Your task to perform on an android device: change your default location settings in chrome Image 0: 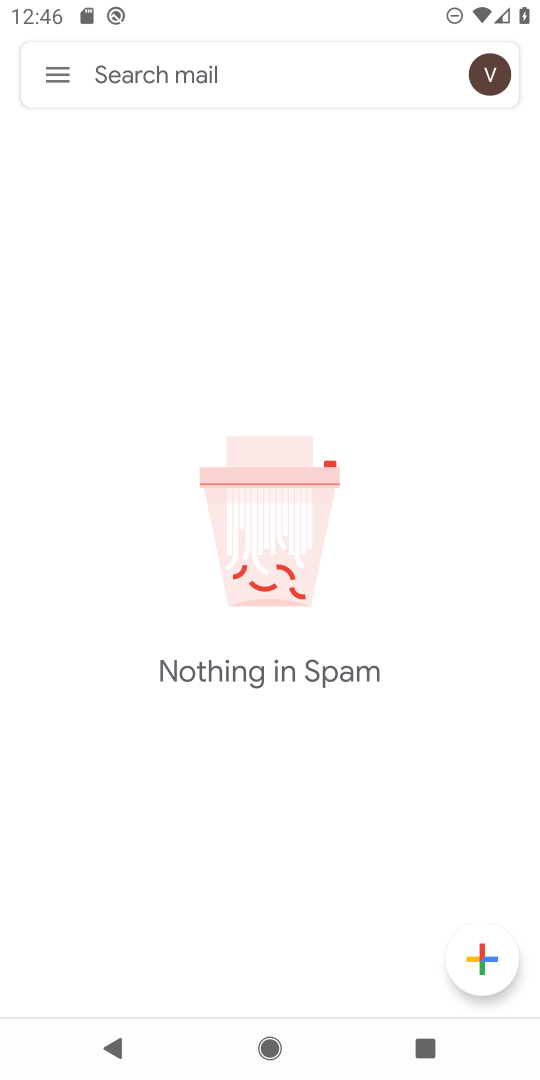
Step 0: press back button
Your task to perform on an android device: change your default location settings in chrome Image 1: 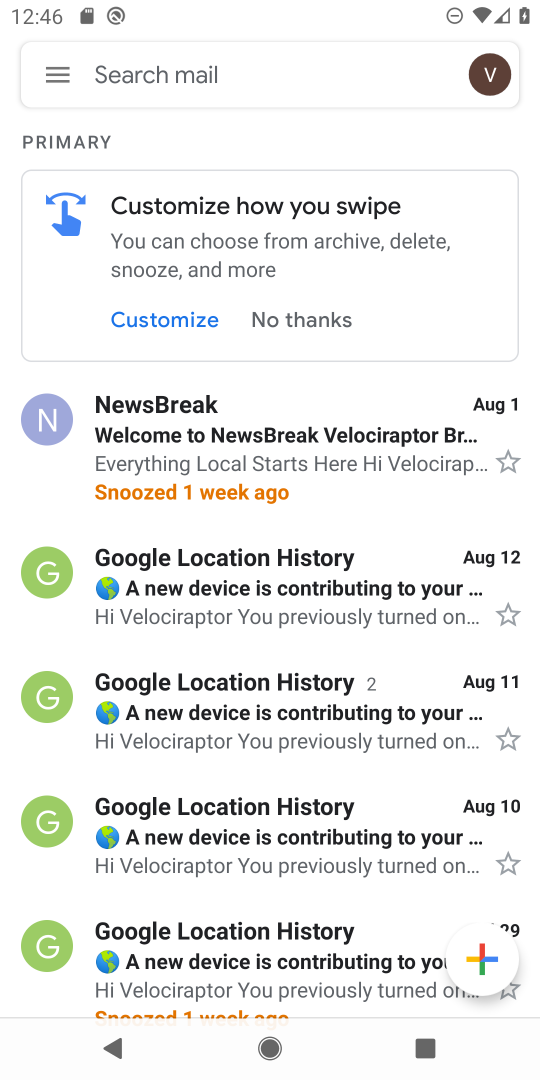
Step 1: press back button
Your task to perform on an android device: change your default location settings in chrome Image 2: 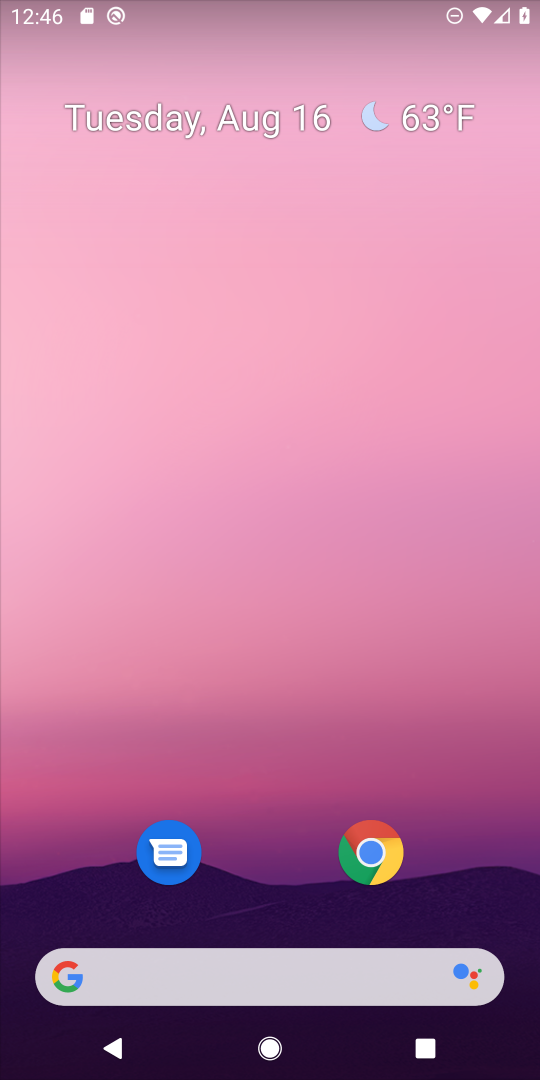
Step 2: click (361, 842)
Your task to perform on an android device: change your default location settings in chrome Image 3: 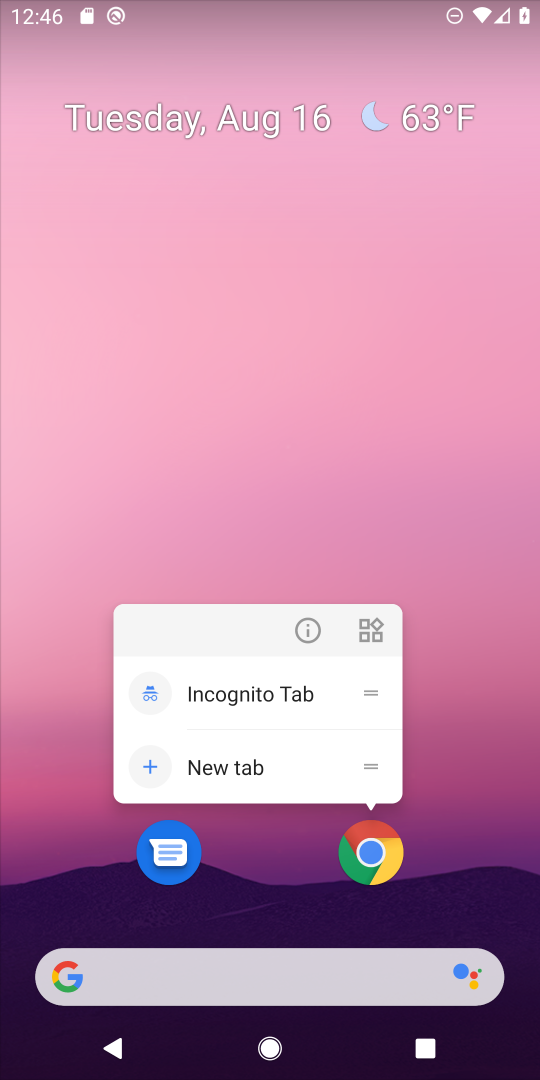
Step 3: click (380, 837)
Your task to perform on an android device: change your default location settings in chrome Image 4: 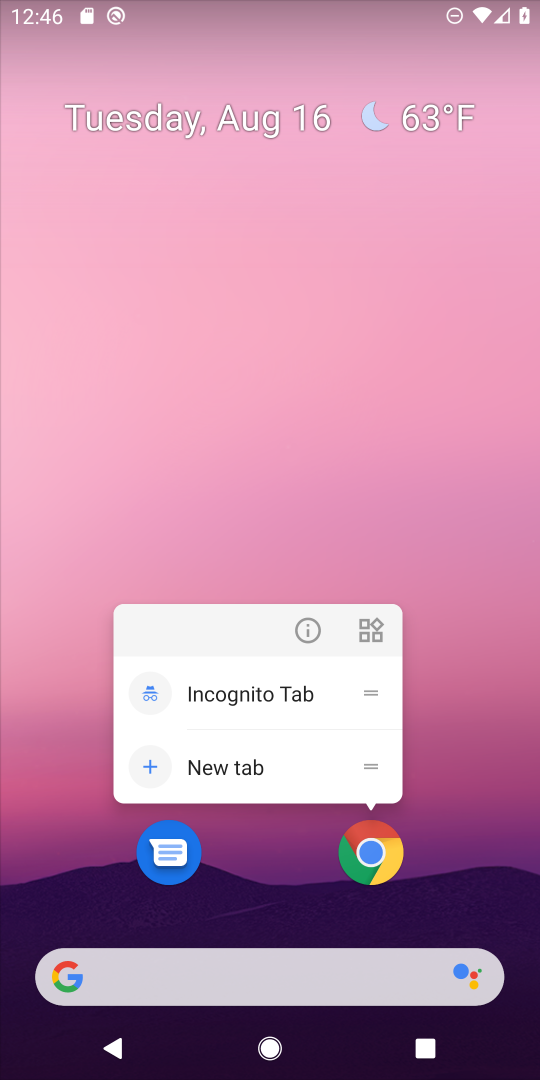
Step 4: click (366, 853)
Your task to perform on an android device: change your default location settings in chrome Image 5: 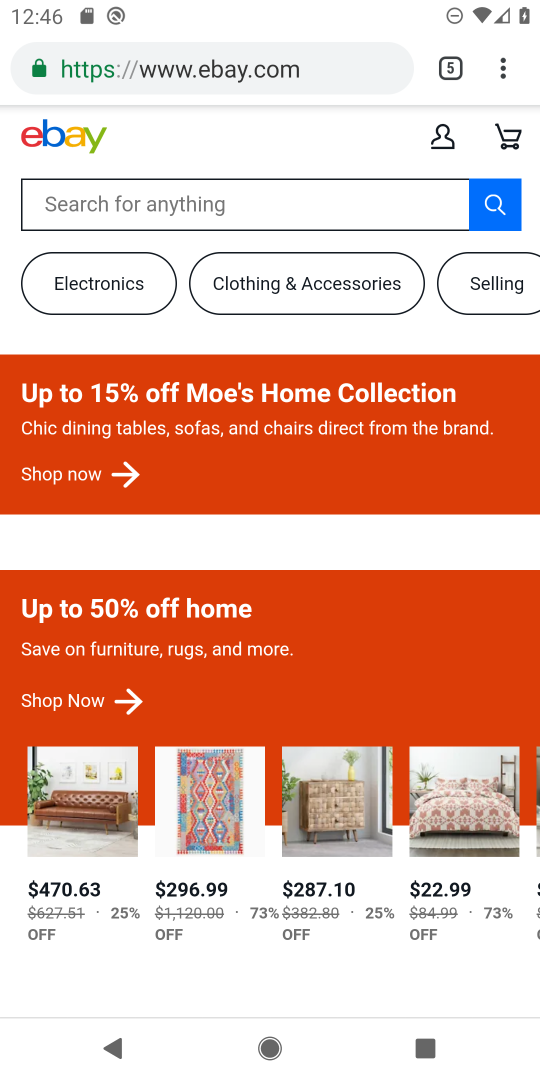
Step 5: drag from (497, 63) to (293, 911)
Your task to perform on an android device: change your default location settings in chrome Image 6: 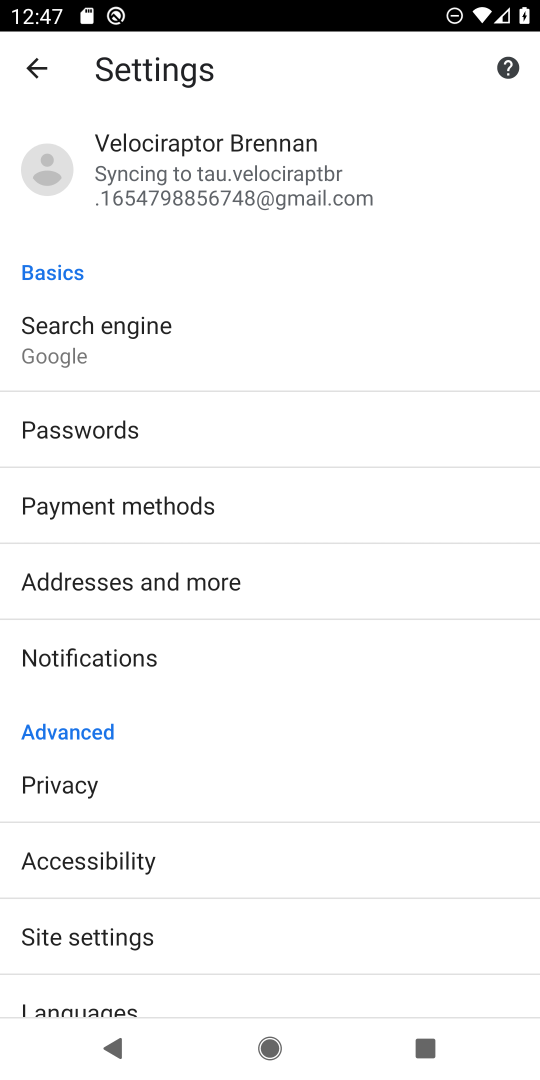
Step 6: drag from (179, 952) to (345, 332)
Your task to perform on an android device: change your default location settings in chrome Image 7: 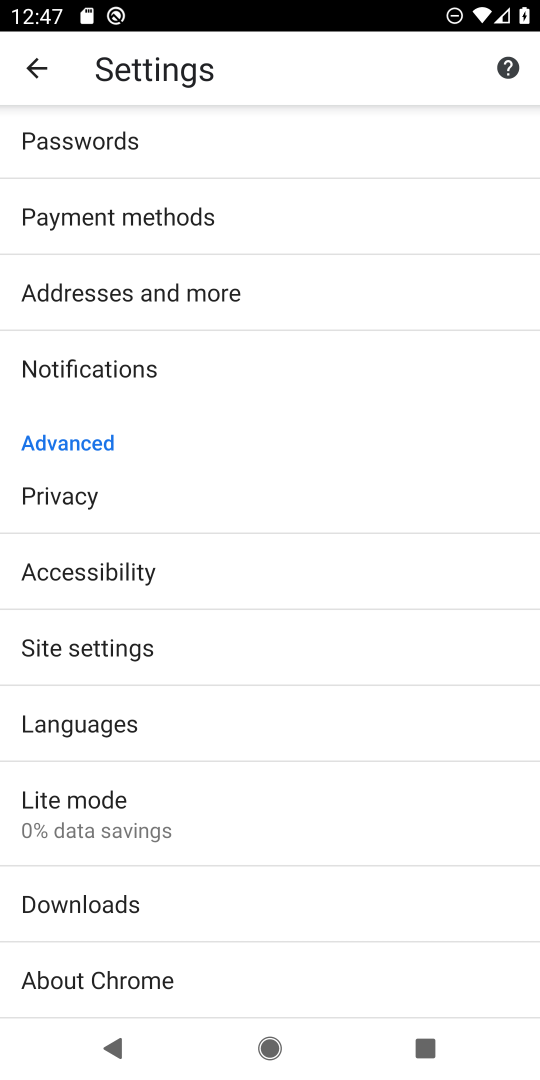
Step 7: click (83, 649)
Your task to perform on an android device: change your default location settings in chrome Image 8: 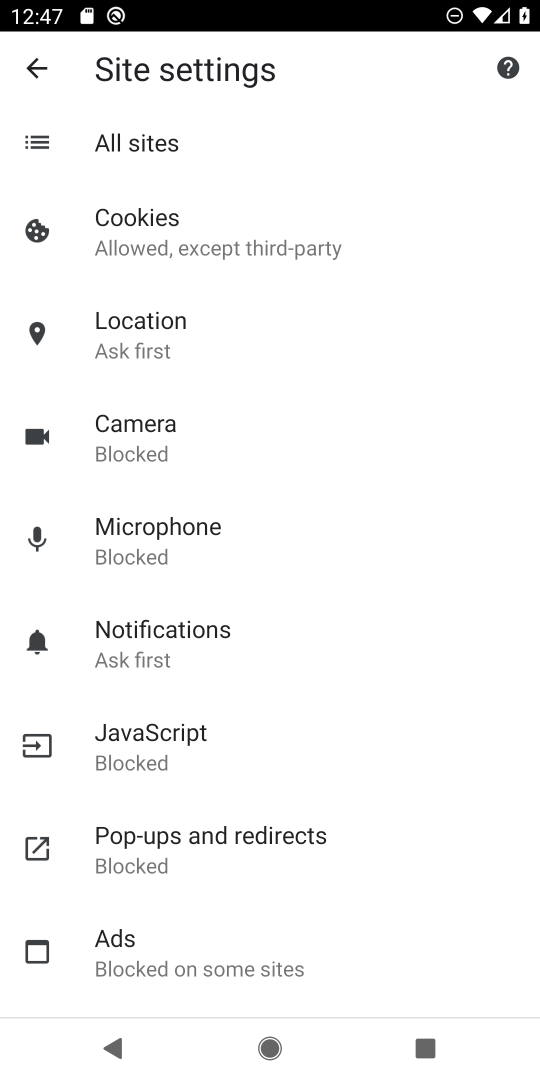
Step 8: click (191, 314)
Your task to perform on an android device: change your default location settings in chrome Image 9: 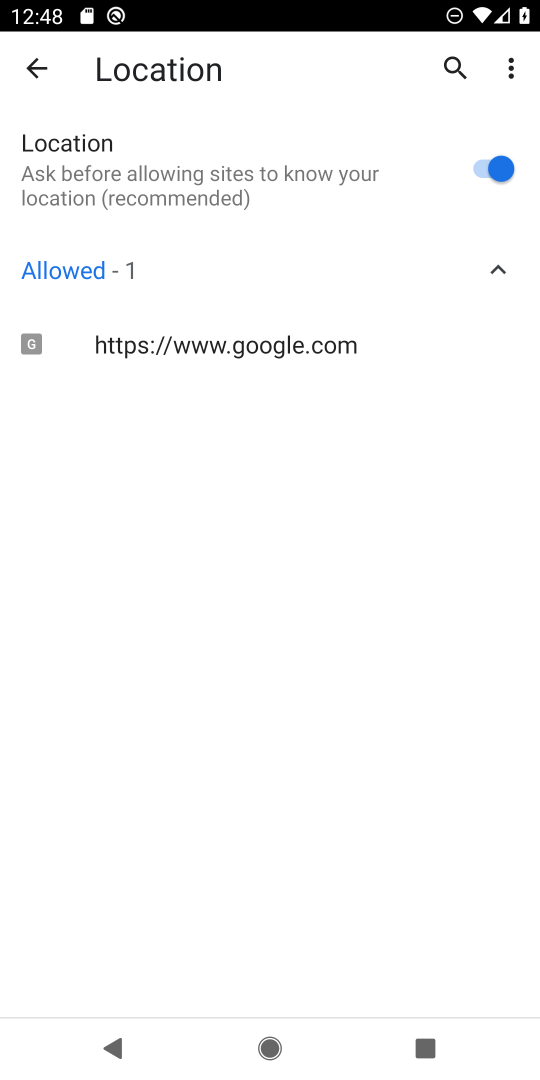
Step 9: click (495, 163)
Your task to perform on an android device: change your default location settings in chrome Image 10: 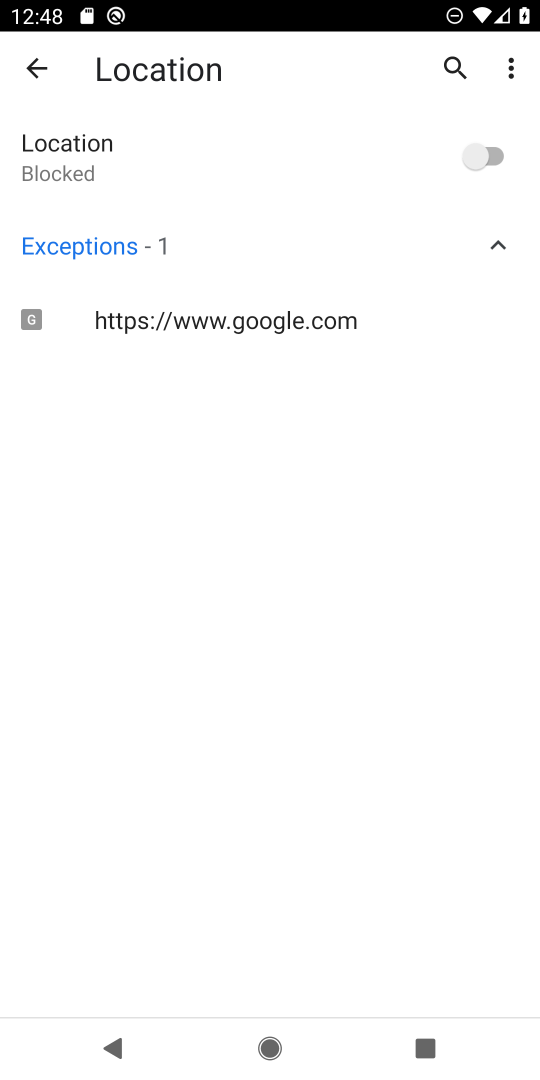
Step 10: task complete